Your task to perform on an android device: change alarm snooze length Image 0: 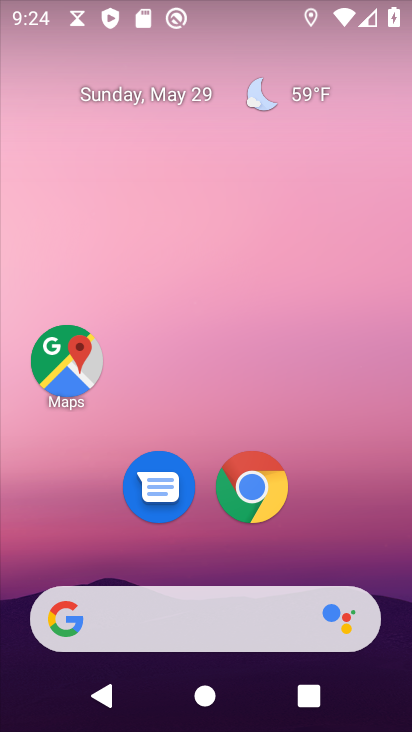
Step 0: drag from (309, 563) to (320, 83)
Your task to perform on an android device: change alarm snooze length Image 1: 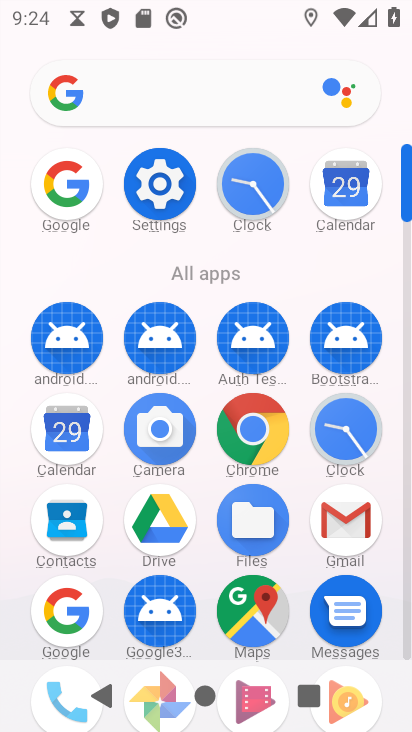
Step 1: click (255, 185)
Your task to perform on an android device: change alarm snooze length Image 2: 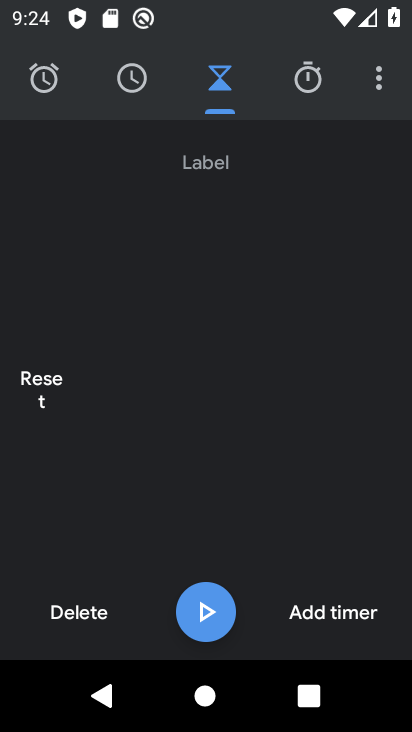
Step 2: click (380, 81)
Your task to perform on an android device: change alarm snooze length Image 3: 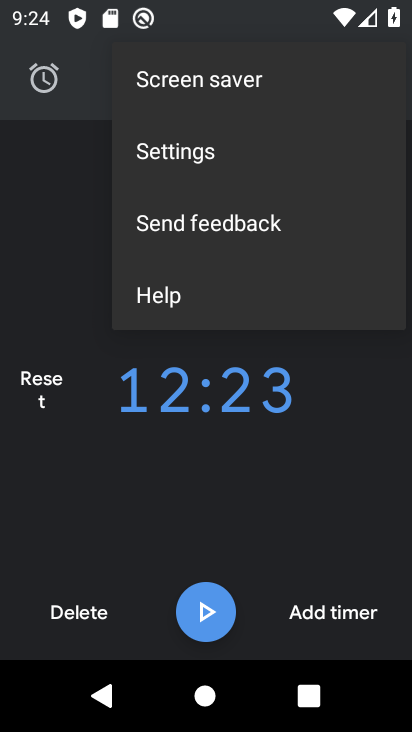
Step 3: click (202, 150)
Your task to perform on an android device: change alarm snooze length Image 4: 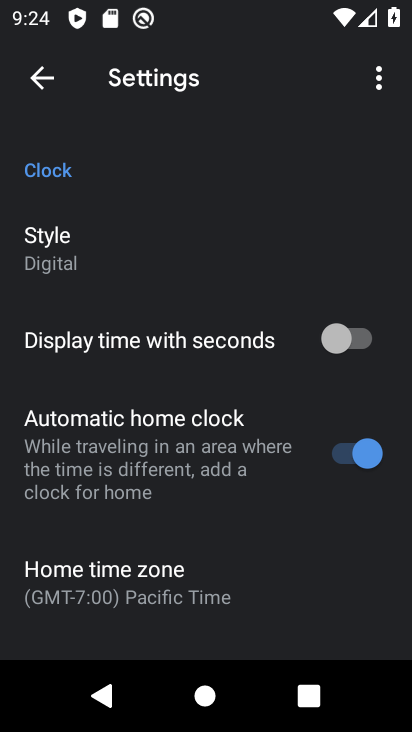
Step 4: drag from (173, 510) to (242, 398)
Your task to perform on an android device: change alarm snooze length Image 5: 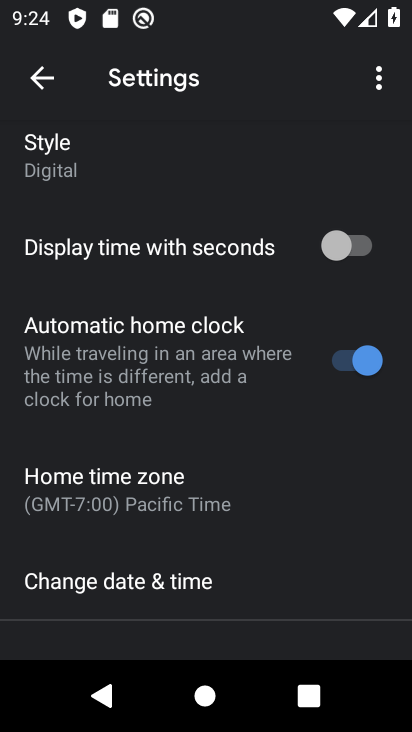
Step 5: drag from (139, 547) to (246, 412)
Your task to perform on an android device: change alarm snooze length Image 6: 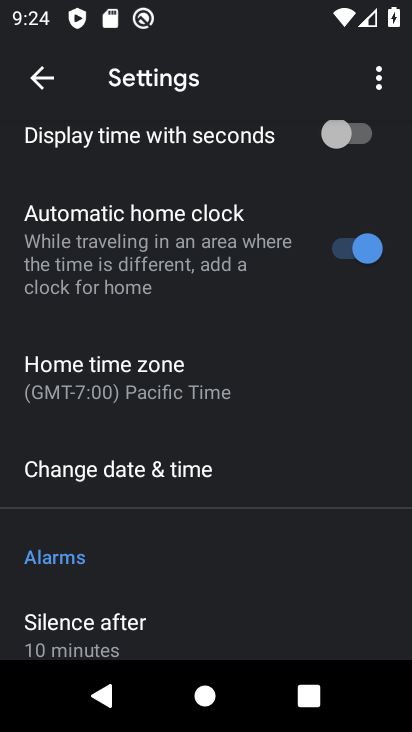
Step 6: drag from (155, 539) to (256, 411)
Your task to perform on an android device: change alarm snooze length Image 7: 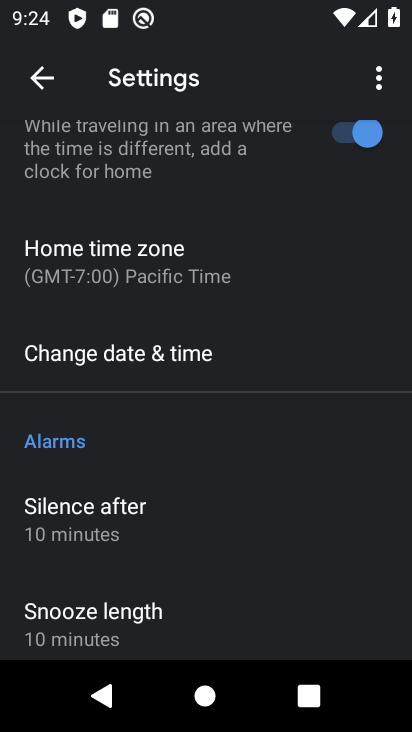
Step 7: drag from (158, 544) to (280, 411)
Your task to perform on an android device: change alarm snooze length Image 8: 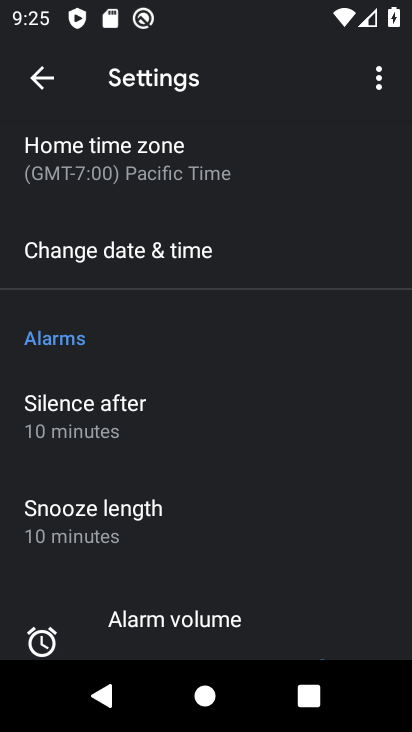
Step 8: click (128, 513)
Your task to perform on an android device: change alarm snooze length Image 9: 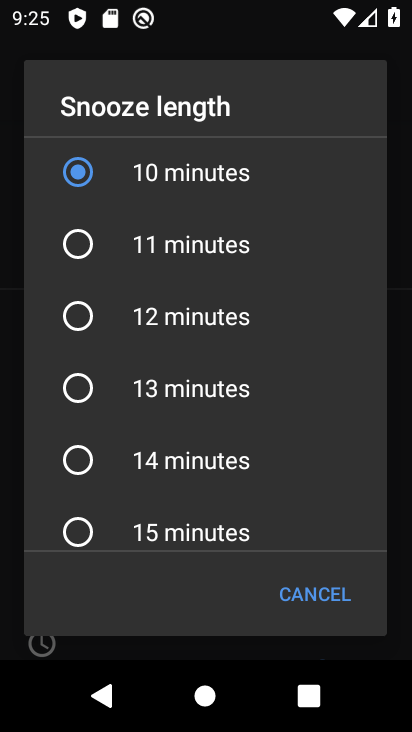
Step 9: drag from (252, 272) to (217, 430)
Your task to perform on an android device: change alarm snooze length Image 10: 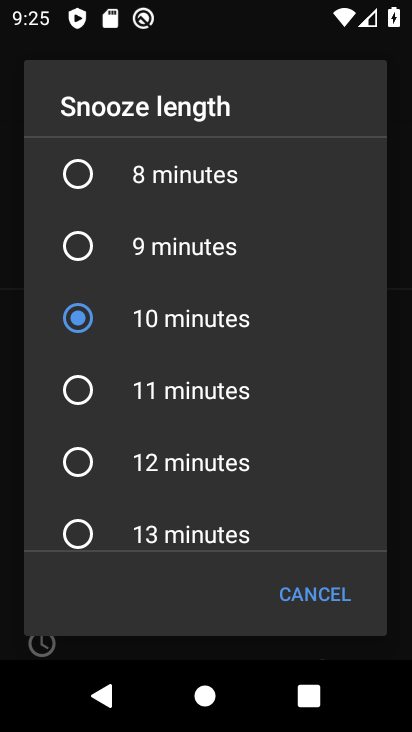
Step 10: drag from (232, 211) to (182, 372)
Your task to perform on an android device: change alarm snooze length Image 11: 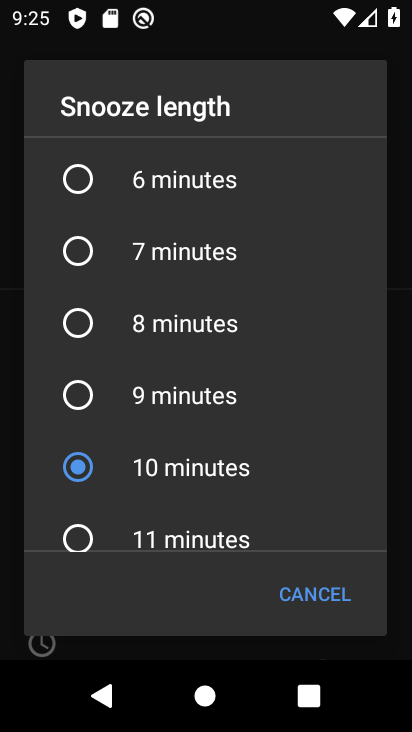
Step 11: drag from (168, 232) to (196, 382)
Your task to perform on an android device: change alarm snooze length Image 12: 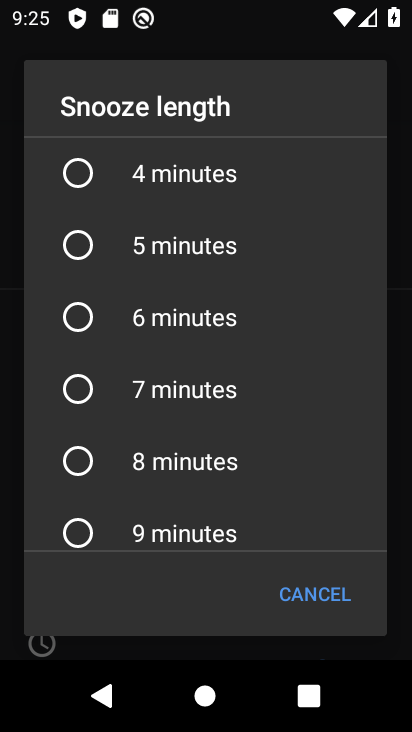
Step 12: click (77, 181)
Your task to perform on an android device: change alarm snooze length Image 13: 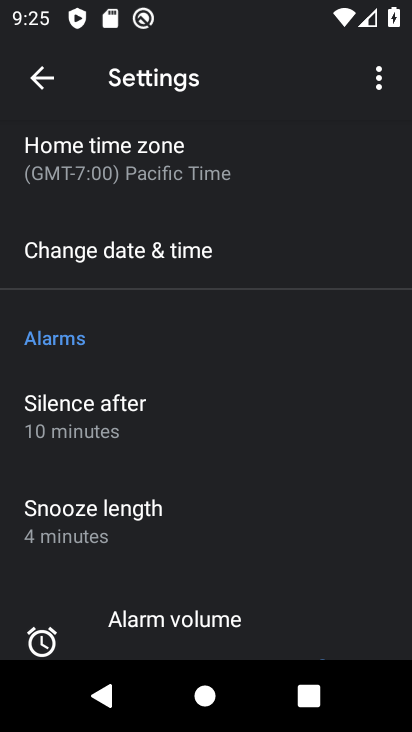
Step 13: task complete